Your task to perform on an android device: Open network settings Image 0: 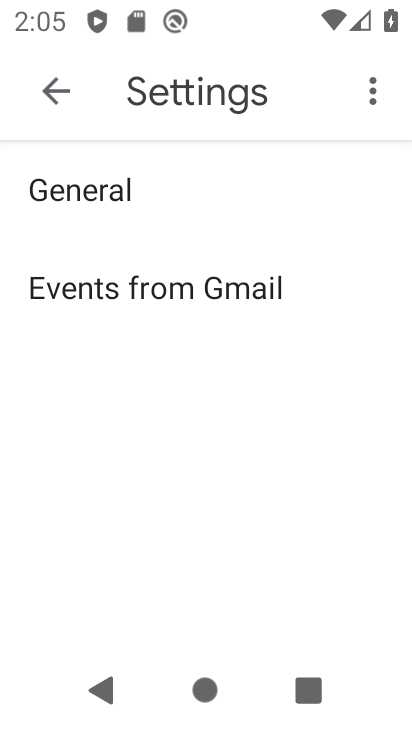
Step 0: press home button
Your task to perform on an android device: Open network settings Image 1: 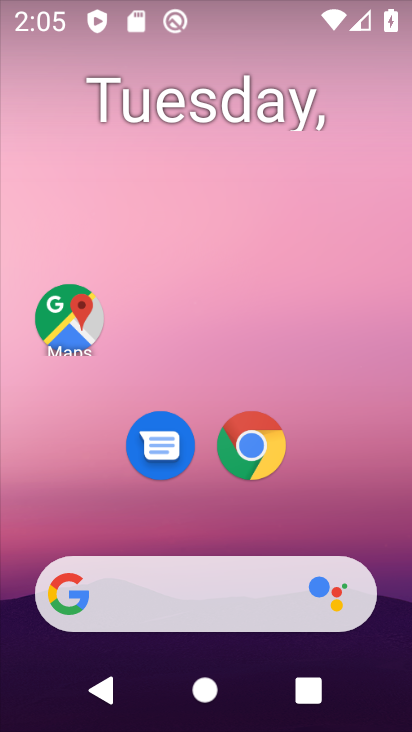
Step 1: drag from (79, 507) to (222, 147)
Your task to perform on an android device: Open network settings Image 2: 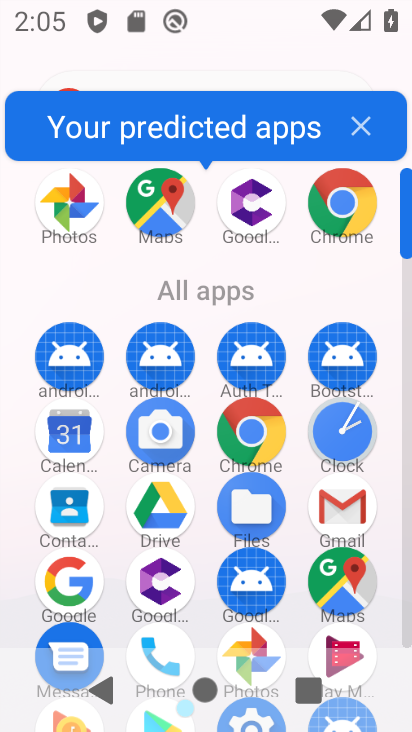
Step 2: drag from (126, 602) to (262, 300)
Your task to perform on an android device: Open network settings Image 3: 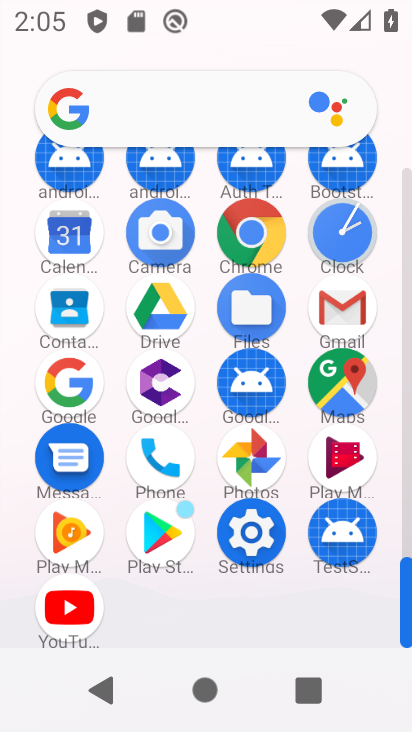
Step 3: click (237, 537)
Your task to perform on an android device: Open network settings Image 4: 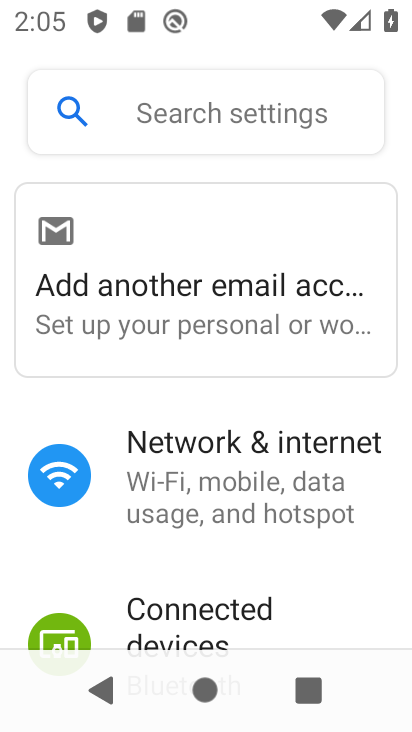
Step 4: click (264, 510)
Your task to perform on an android device: Open network settings Image 5: 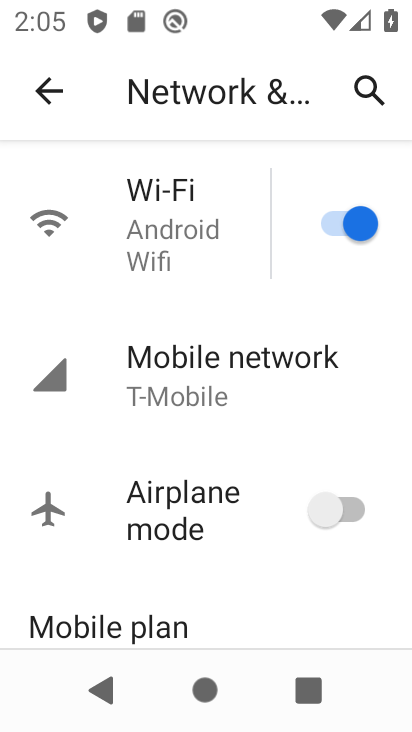
Step 5: click (284, 392)
Your task to perform on an android device: Open network settings Image 6: 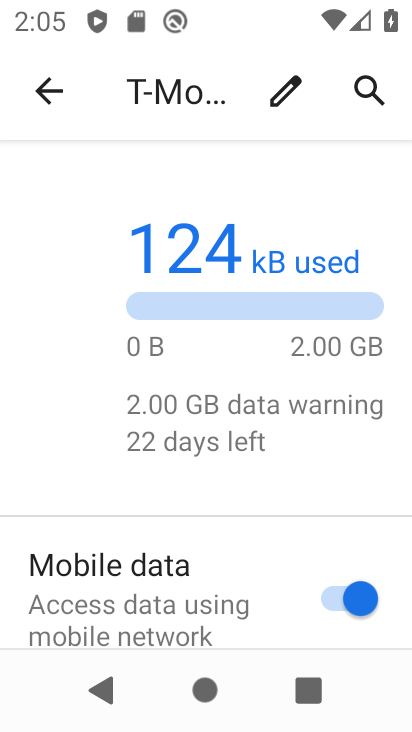
Step 6: task complete